Your task to perform on an android device: What's the weather today? Image 0: 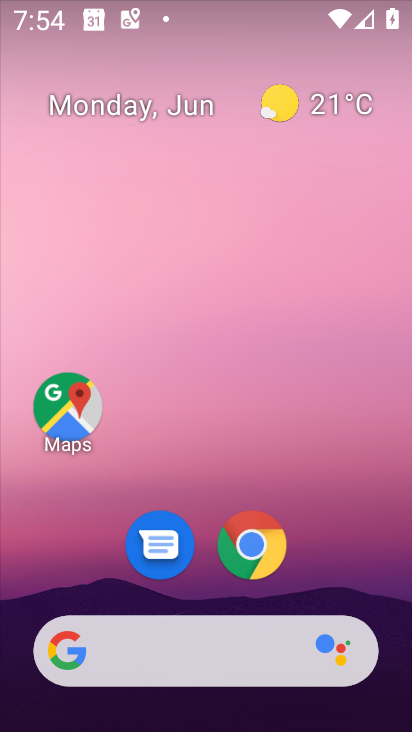
Step 0: click (336, 116)
Your task to perform on an android device: What's the weather today? Image 1: 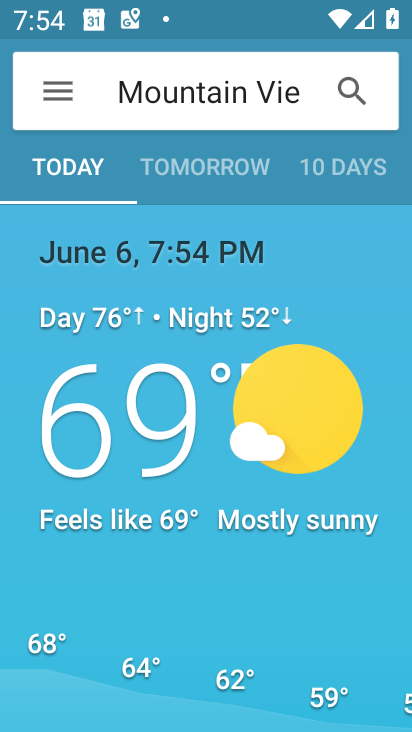
Step 1: task complete